Your task to perform on an android device: check storage Image 0: 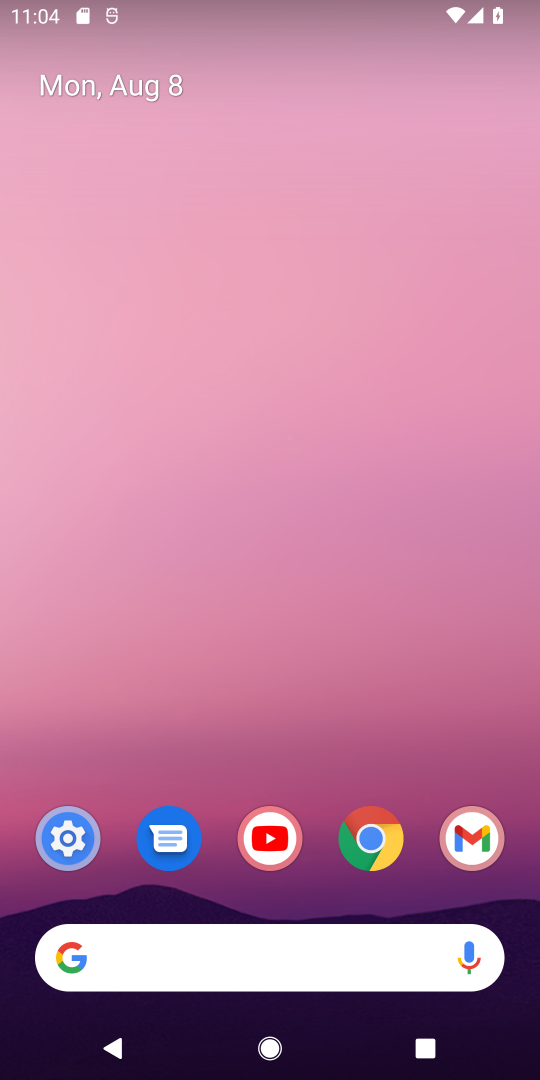
Step 0: drag from (498, 749) to (411, 200)
Your task to perform on an android device: check storage Image 1: 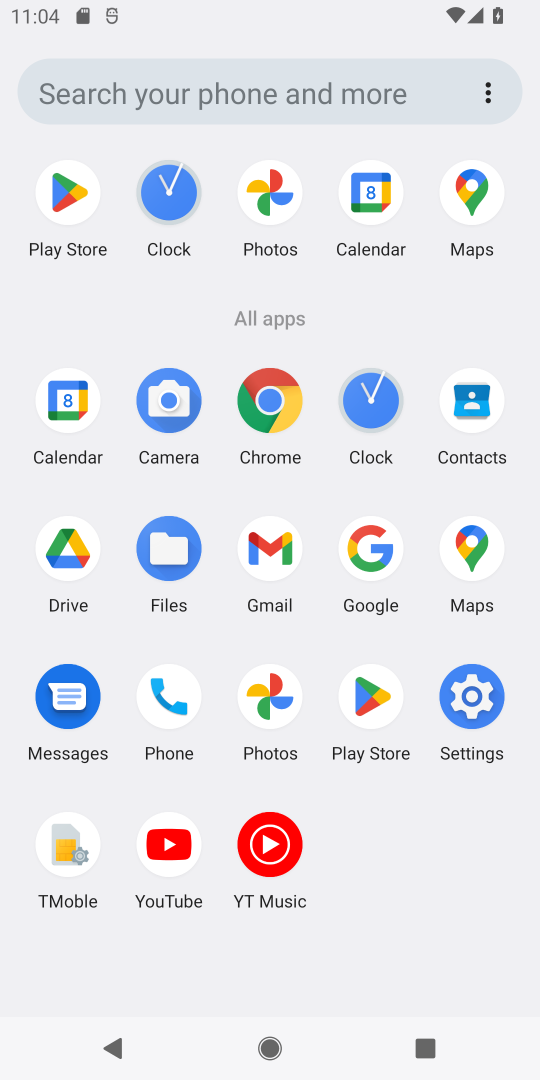
Step 1: click (475, 732)
Your task to perform on an android device: check storage Image 2: 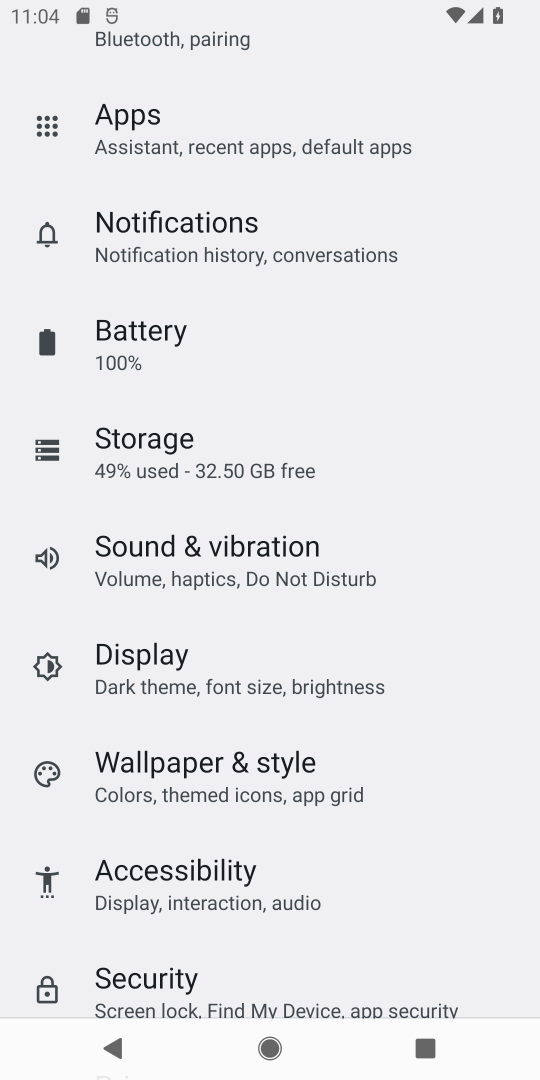
Step 2: click (204, 449)
Your task to perform on an android device: check storage Image 3: 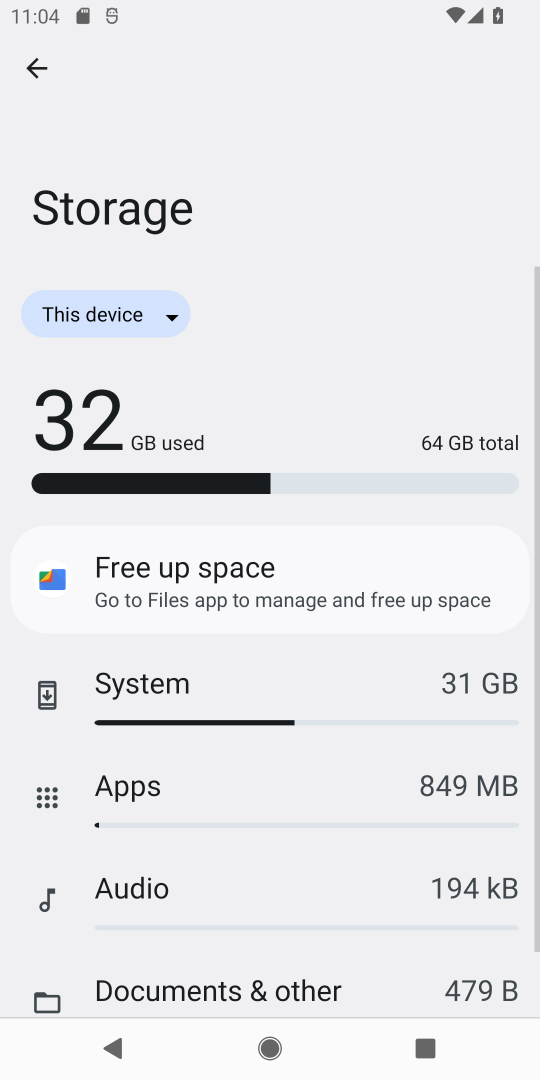
Step 3: task complete